Your task to perform on an android device: set default search engine in the chrome app Image 0: 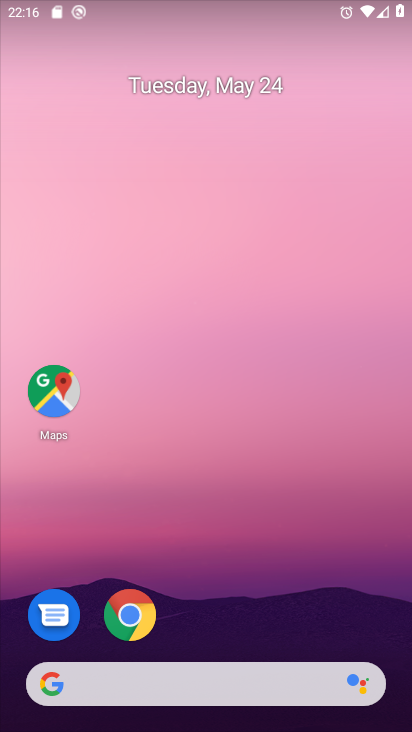
Step 0: drag from (262, 470) to (305, 210)
Your task to perform on an android device: set default search engine in the chrome app Image 1: 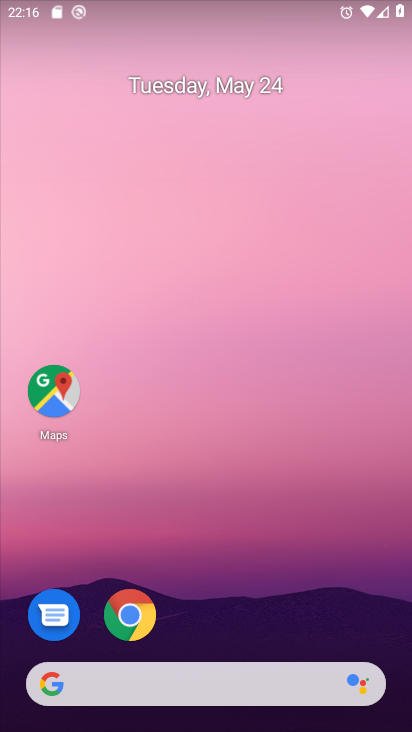
Step 1: drag from (220, 611) to (283, 135)
Your task to perform on an android device: set default search engine in the chrome app Image 2: 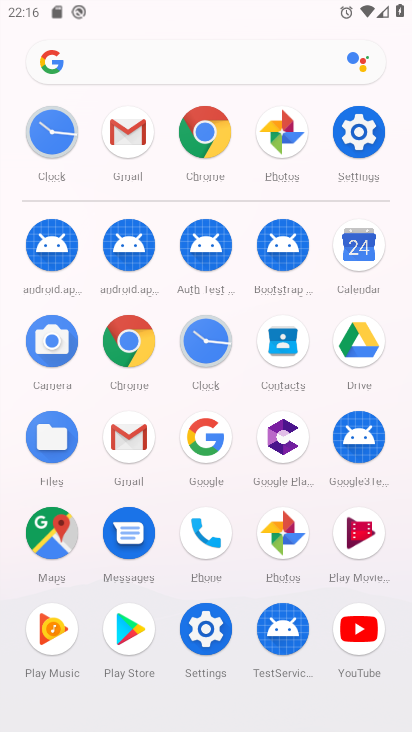
Step 2: click (212, 121)
Your task to perform on an android device: set default search engine in the chrome app Image 3: 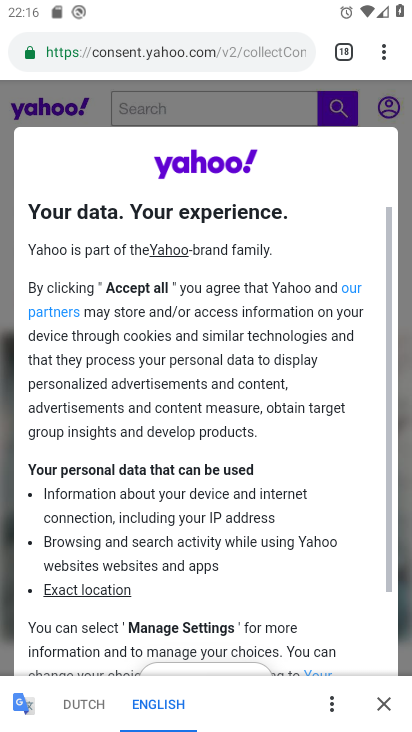
Step 3: click (391, 46)
Your task to perform on an android device: set default search engine in the chrome app Image 4: 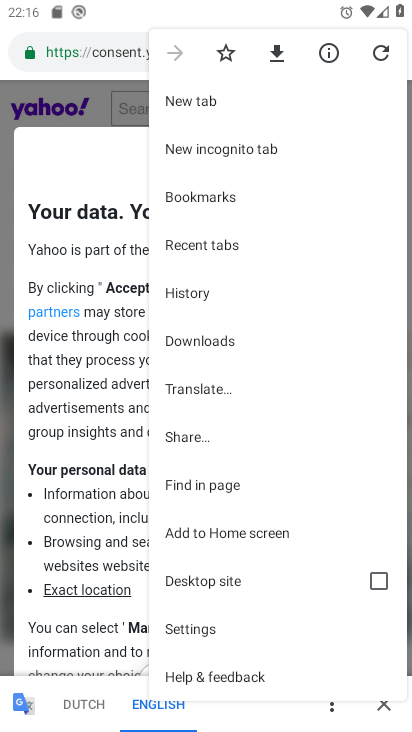
Step 4: click (241, 636)
Your task to perform on an android device: set default search engine in the chrome app Image 5: 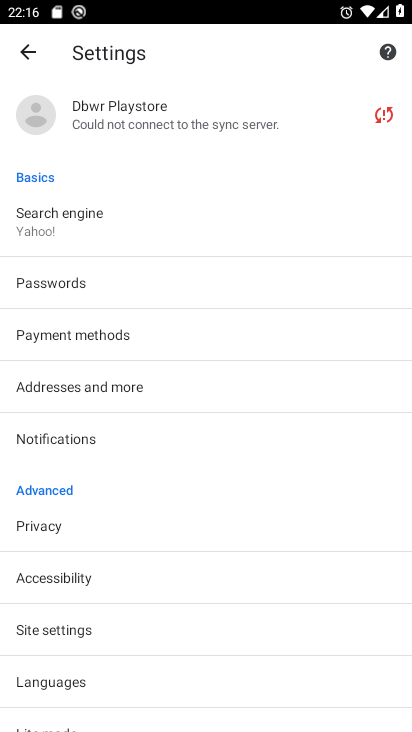
Step 5: click (55, 213)
Your task to perform on an android device: set default search engine in the chrome app Image 6: 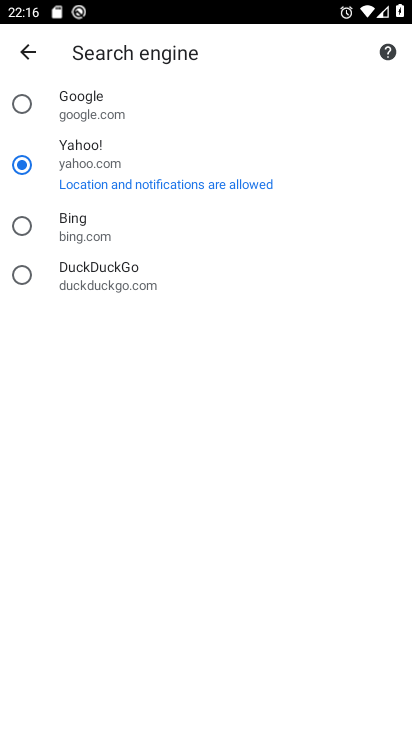
Step 6: click (85, 236)
Your task to perform on an android device: set default search engine in the chrome app Image 7: 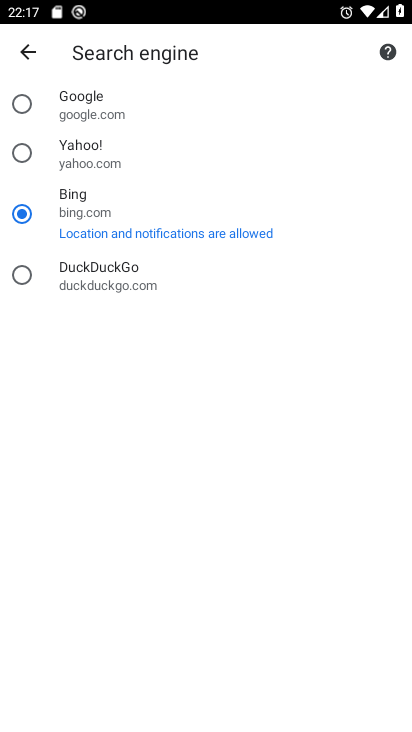
Step 7: task complete